Your task to perform on an android device: turn on the 12-hour format for clock Image 0: 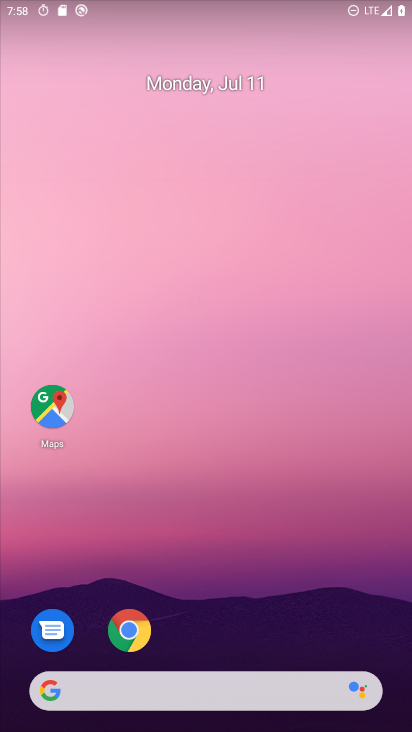
Step 0: drag from (152, 691) to (288, 219)
Your task to perform on an android device: turn on the 12-hour format for clock Image 1: 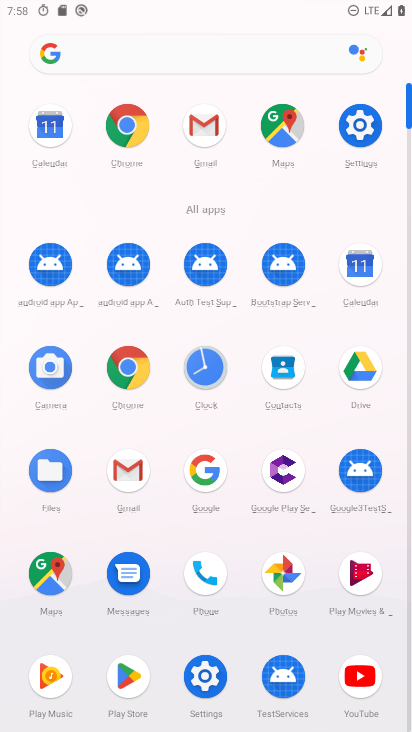
Step 1: click (207, 382)
Your task to perform on an android device: turn on the 12-hour format for clock Image 2: 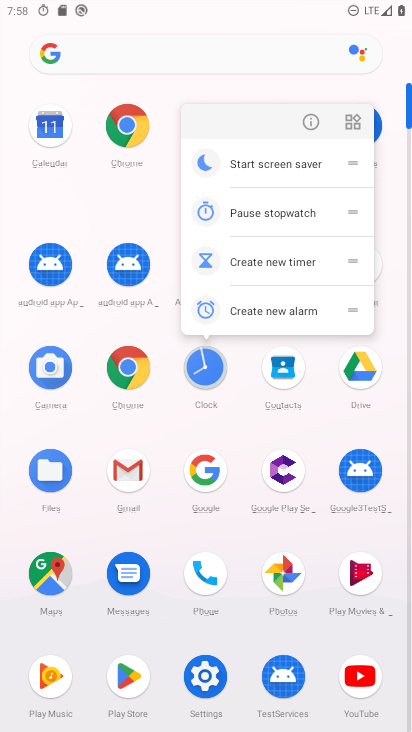
Step 2: click (210, 372)
Your task to perform on an android device: turn on the 12-hour format for clock Image 3: 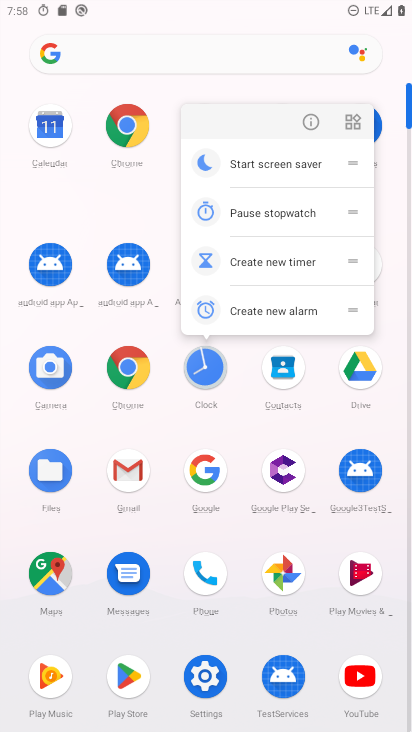
Step 3: click (210, 372)
Your task to perform on an android device: turn on the 12-hour format for clock Image 4: 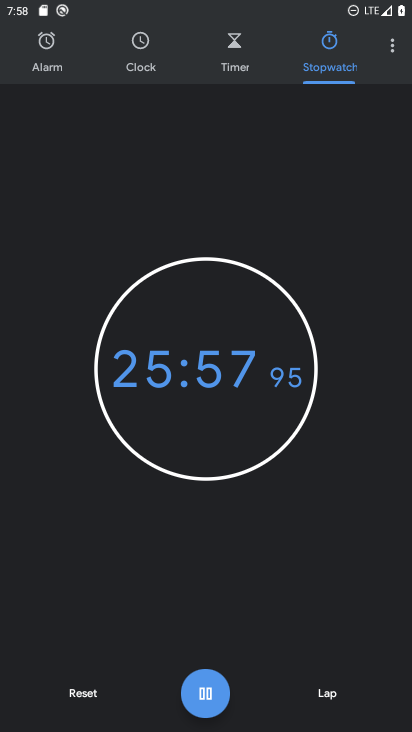
Step 4: click (392, 51)
Your task to perform on an android device: turn on the 12-hour format for clock Image 5: 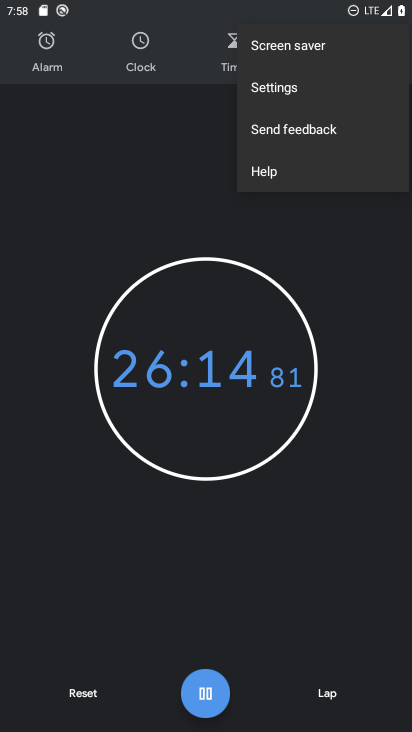
Step 5: click (293, 93)
Your task to perform on an android device: turn on the 12-hour format for clock Image 6: 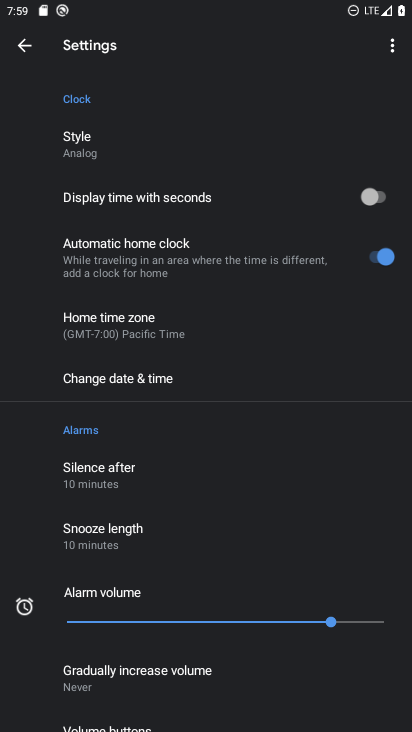
Step 6: click (128, 376)
Your task to perform on an android device: turn on the 12-hour format for clock Image 7: 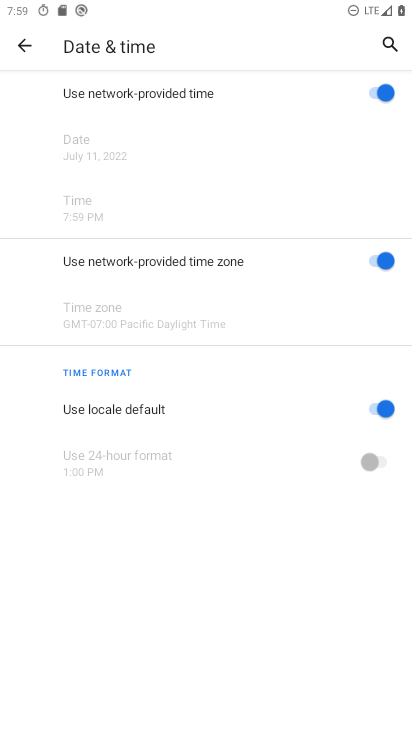
Step 7: task complete